Your task to perform on an android device: Open Google Chrome and open the bookmarks view Image 0: 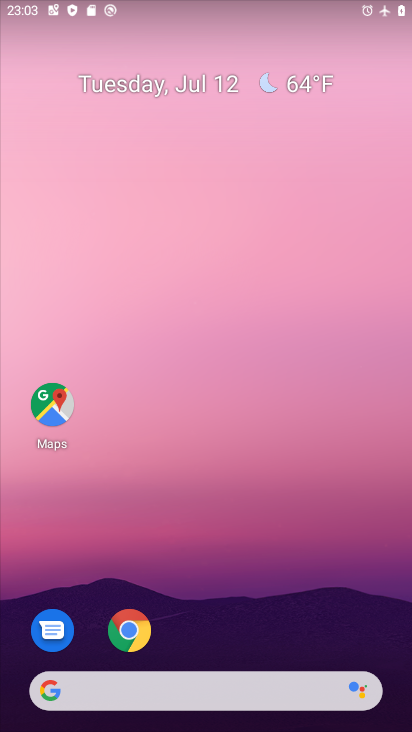
Step 0: drag from (188, 656) to (159, 56)
Your task to perform on an android device: Open Google Chrome and open the bookmarks view Image 1: 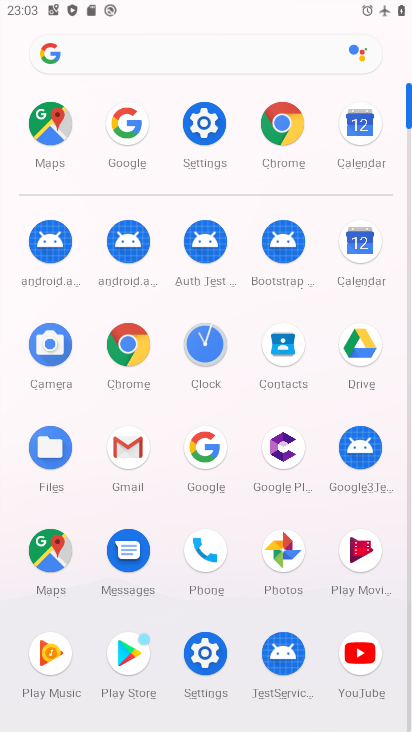
Step 1: click (136, 339)
Your task to perform on an android device: Open Google Chrome and open the bookmarks view Image 2: 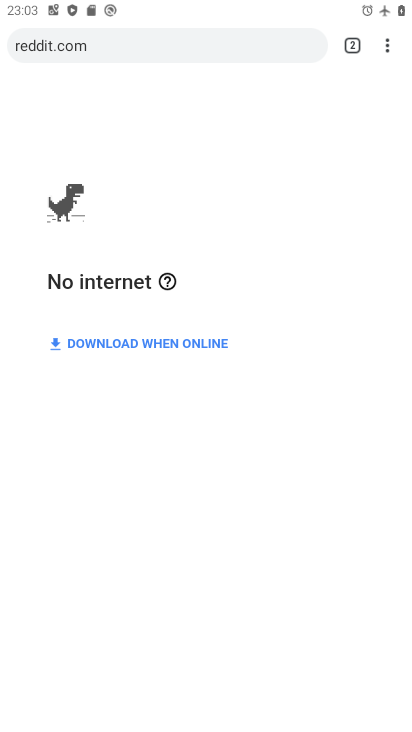
Step 2: click (390, 41)
Your task to perform on an android device: Open Google Chrome and open the bookmarks view Image 3: 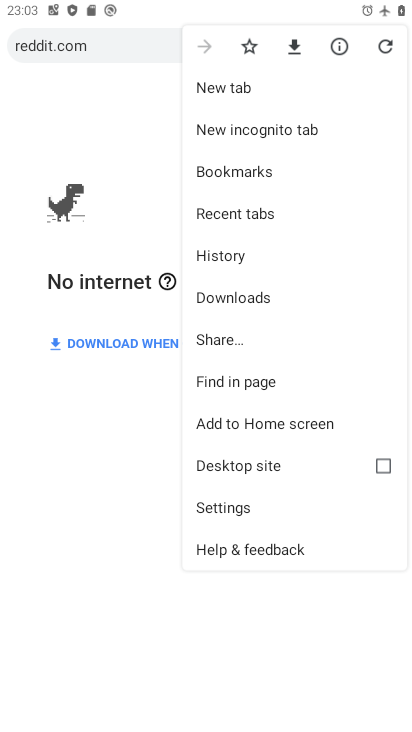
Step 3: click (237, 169)
Your task to perform on an android device: Open Google Chrome and open the bookmarks view Image 4: 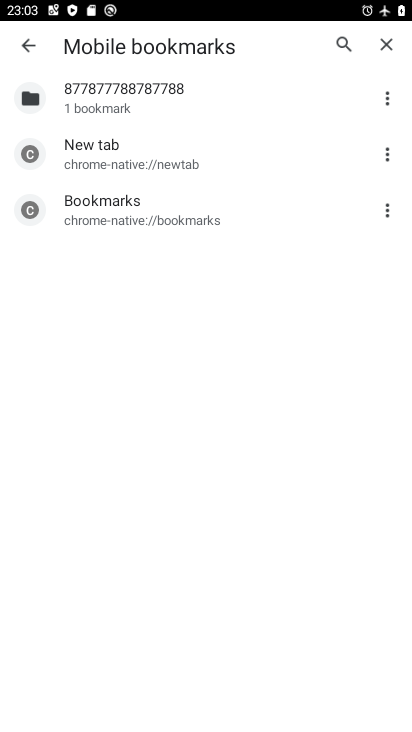
Step 4: task complete